Your task to perform on an android device: Search for Italian restaurants on Maps Image 0: 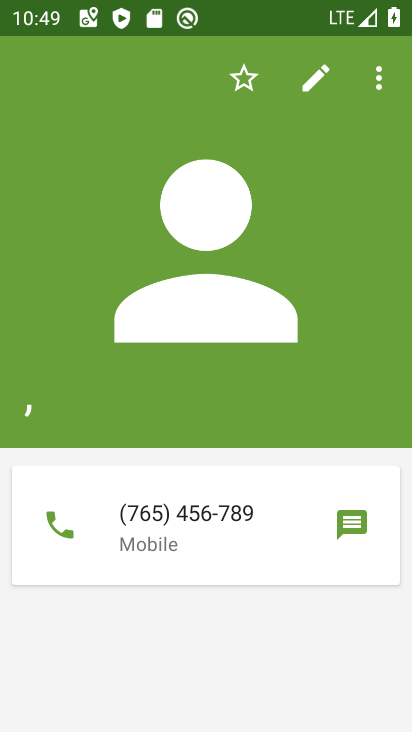
Step 0: press home button
Your task to perform on an android device: Search for Italian restaurants on Maps Image 1: 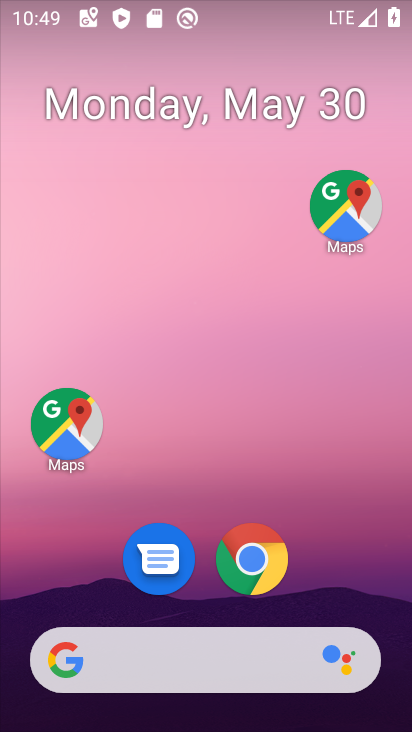
Step 1: click (71, 426)
Your task to perform on an android device: Search for Italian restaurants on Maps Image 2: 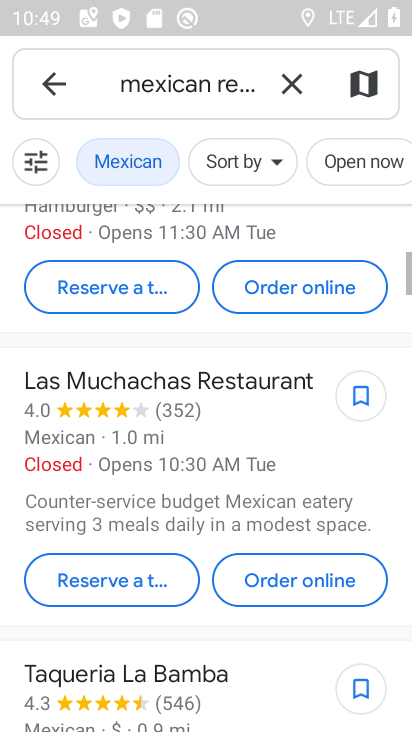
Step 2: click (190, 74)
Your task to perform on an android device: Search for Italian restaurants on Maps Image 3: 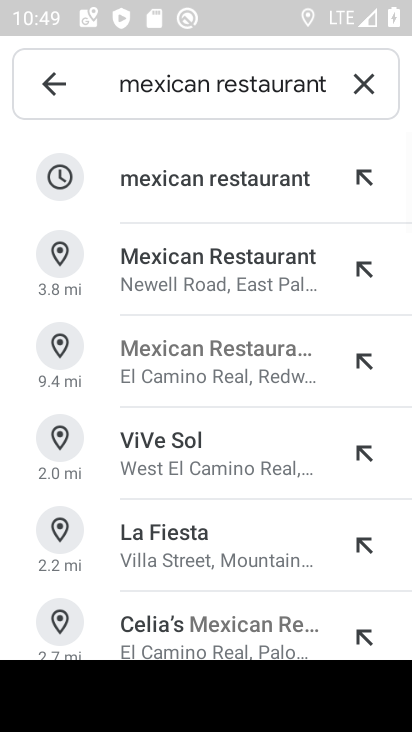
Step 3: click (367, 71)
Your task to perform on an android device: Search for Italian restaurants on Maps Image 4: 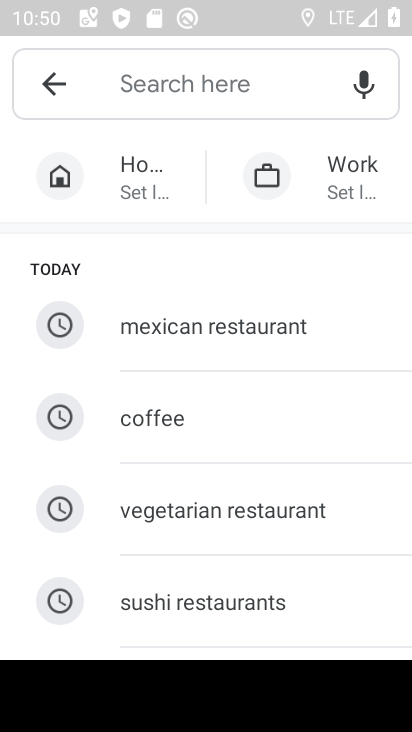
Step 4: type "Italian restaurants"
Your task to perform on an android device: Search for Italian restaurants on Maps Image 5: 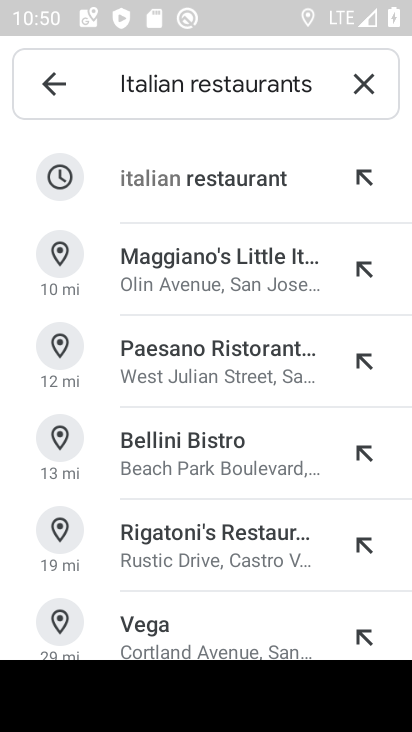
Step 5: press enter
Your task to perform on an android device: Search for Italian restaurants on Maps Image 6: 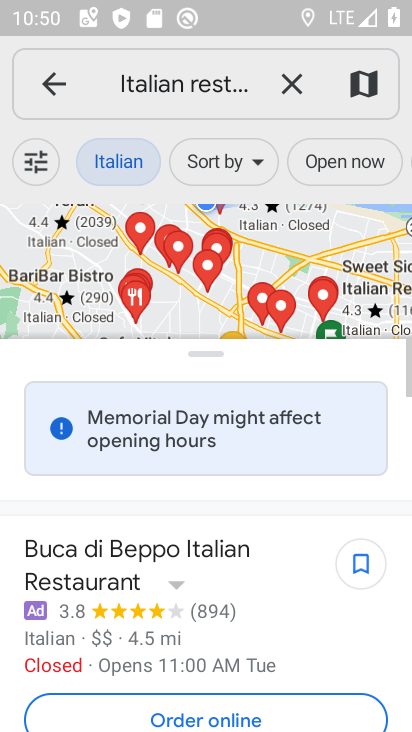
Step 6: task complete